Your task to perform on an android device: stop showing notifications on the lock screen Image 0: 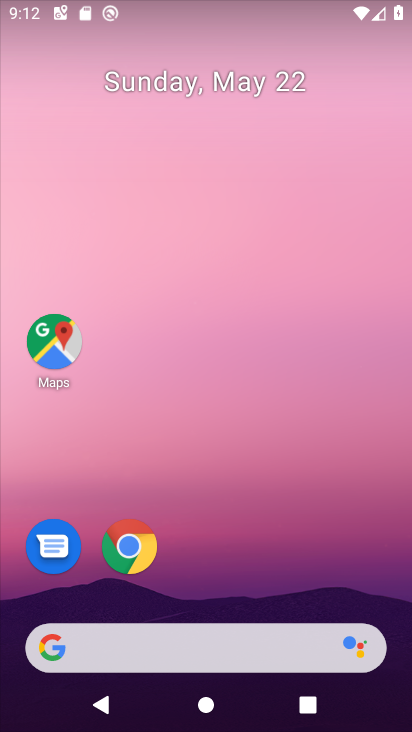
Step 0: drag from (368, 570) to (363, 136)
Your task to perform on an android device: stop showing notifications on the lock screen Image 1: 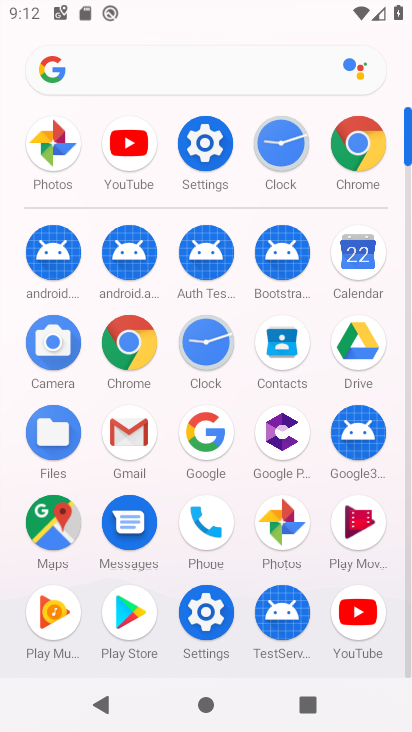
Step 1: click (216, 625)
Your task to perform on an android device: stop showing notifications on the lock screen Image 2: 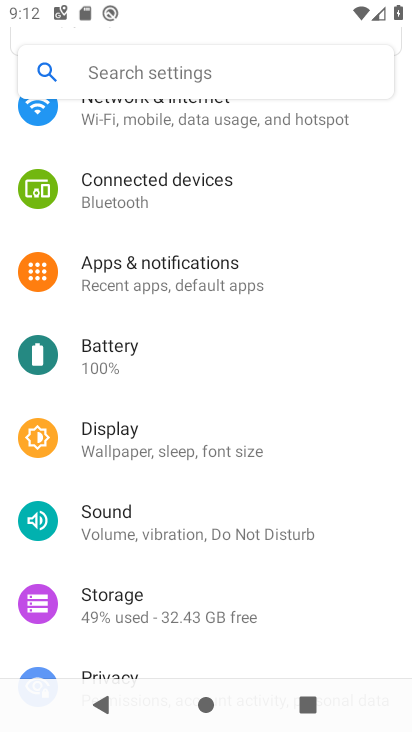
Step 2: drag from (322, 279) to (333, 409)
Your task to perform on an android device: stop showing notifications on the lock screen Image 3: 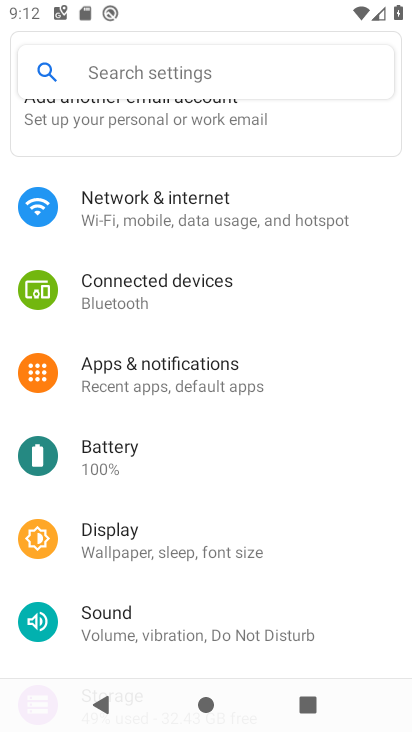
Step 3: drag from (348, 228) to (335, 359)
Your task to perform on an android device: stop showing notifications on the lock screen Image 4: 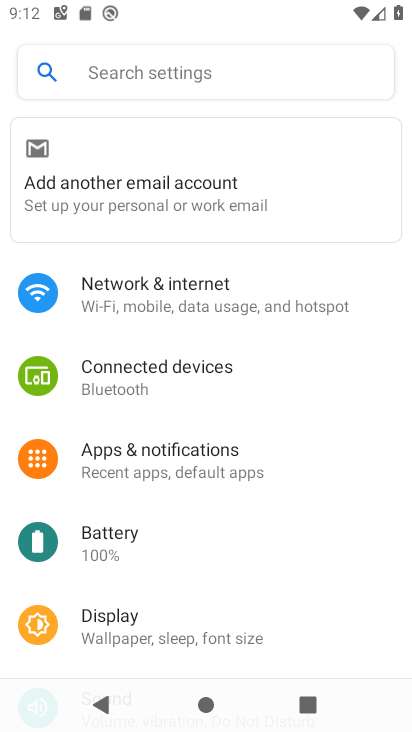
Step 4: drag from (339, 494) to (337, 369)
Your task to perform on an android device: stop showing notifications on the lock screen Image 5: 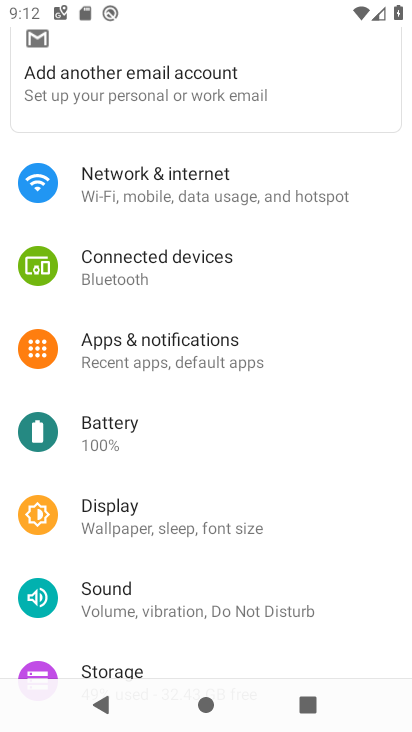
Step 5: click (221, 350)
Your task to perform on an android device: stop showing notifications on the lock screen Image 6: 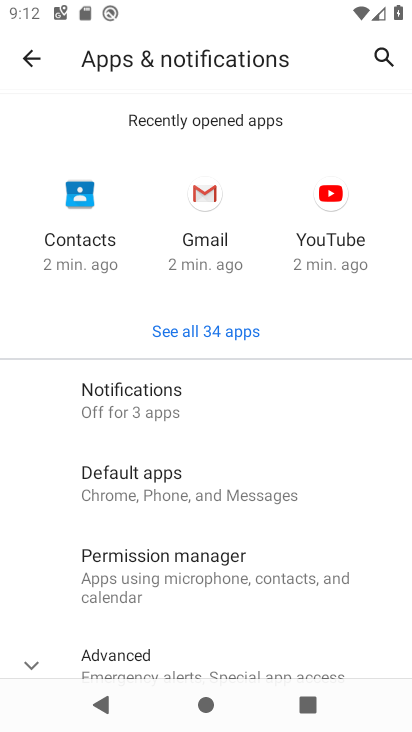
Step 6: drag from (323, 537) to (330, 371)
Your task to perform on an android device: stop showing notifications on the lock screen Image 7: 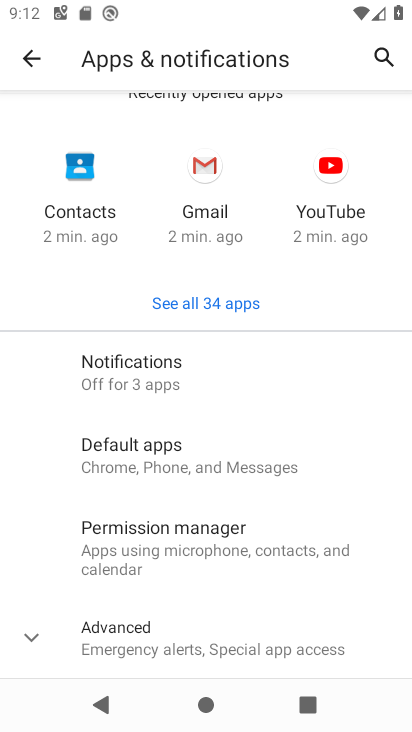
Step 7: drag from (312, 582) to (318, 421)
Your task to perform on an android device: stop showing notifications on the lock screen Image 8: 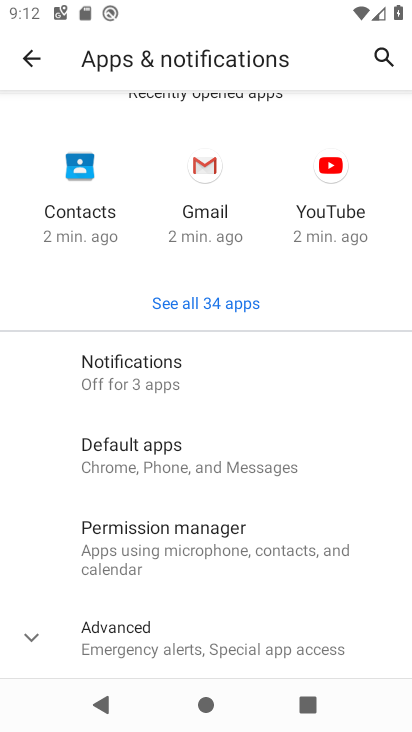
Step 8: click (196, 371)
Your task to perform on an android device: stop showing notifications on the lock screen Image 9: 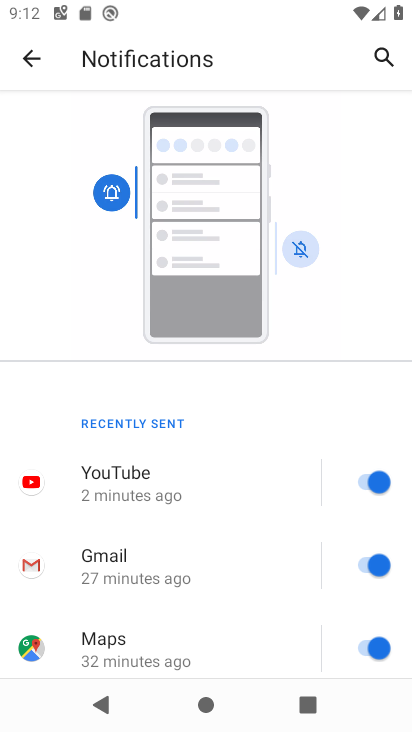
Step 9: drag from (218, 502) to (223, 455)
Your task to perform on an android device: stop showing notifications on the lock screen Image 10: 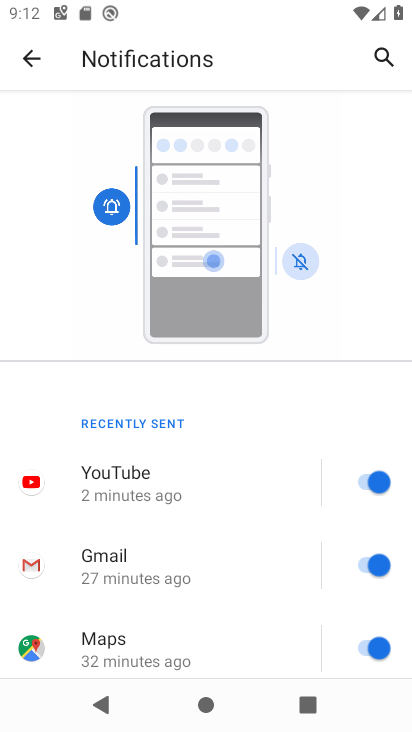
Step 10: drag from (238, 583) to (247, 387)
Your task to perform on an android device: stop showing notifications on the lock screen Image 11: 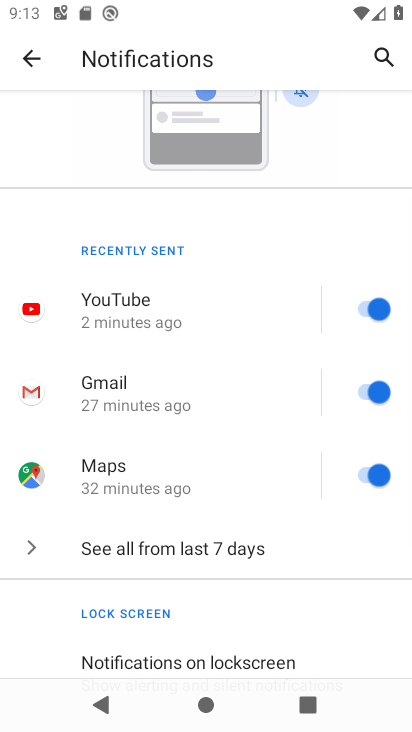
Step 11: drag from (273, 598) to (273, 456)
Your task to perform on an android device: stop showing notifications on the lock screen Image 12: 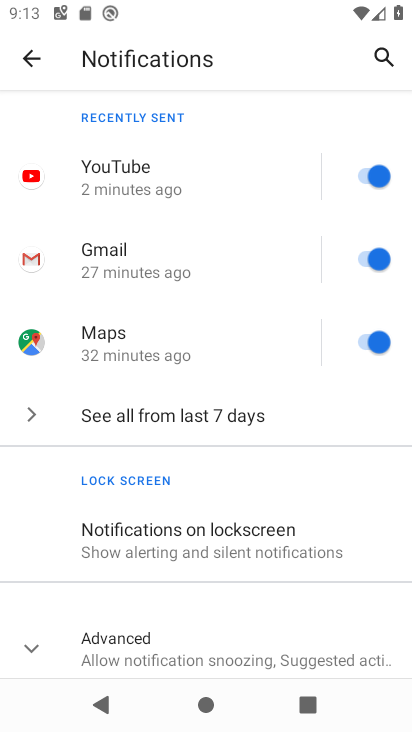
Step 12: drag from (277, 588) to (277, 411)
Your task to perform on an android device: stop showing notifications on the lock screen Image 13: 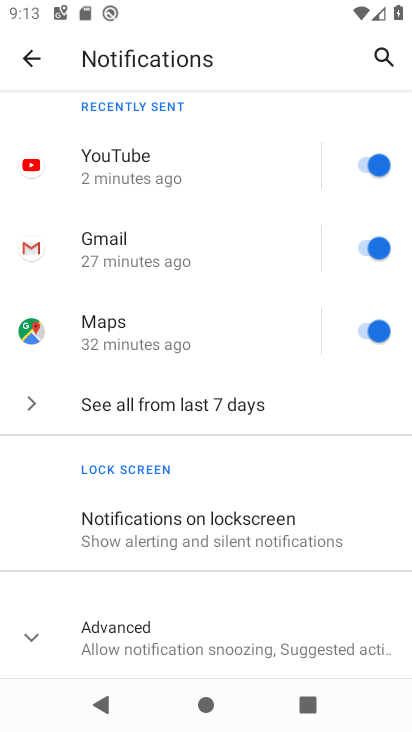
Step 13: click (260, 541)
Your task to perform on an android device: stop showing notifications on the lock screen Image 14: 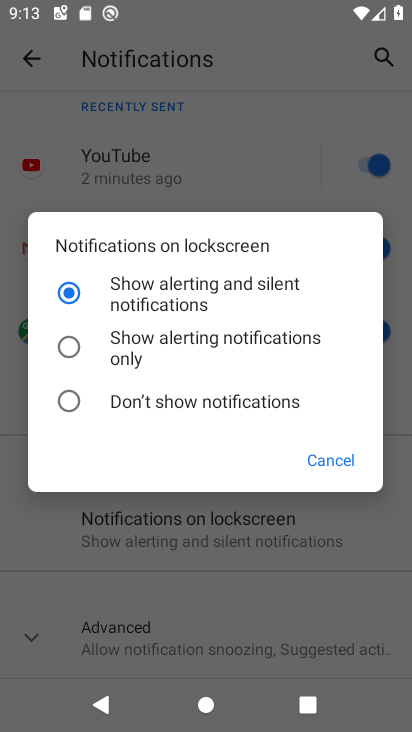
Step 14: click (157, 402)
Your task to perform on an android device: stop showing notifications on the lock screen Image 15: 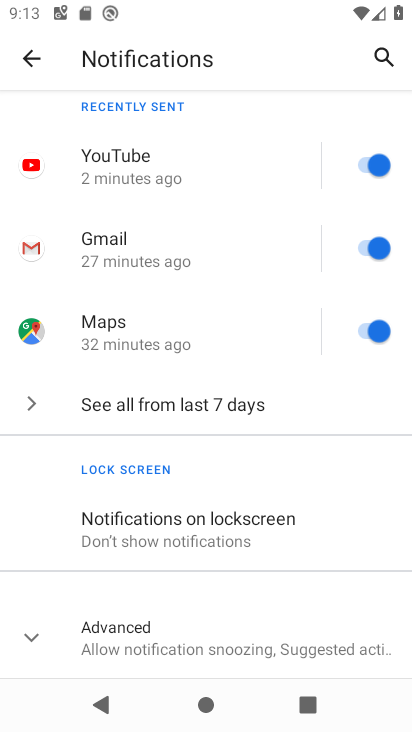
Step 15: task complete